Your task to perform on an android device: Toggle the flashlight Image 0: 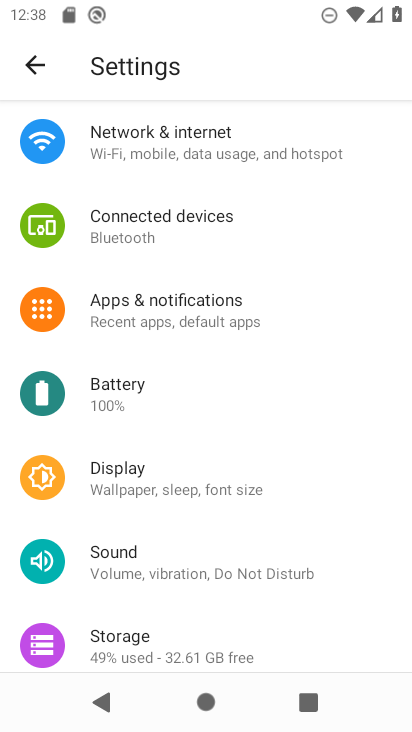
Step 0: drag from (366, 228) to (396, 531)
Your task to perform on an android device: Toggle the flashlight Image 1: 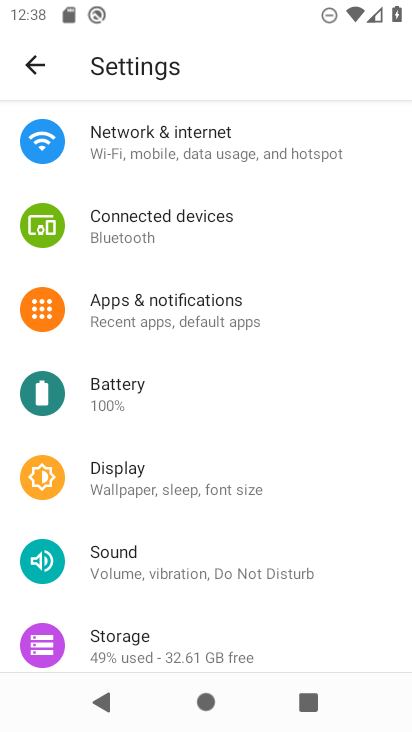
Step 1: click (130, 308)
Your task to perform on an android device: Toggle the flashlight Image 2: 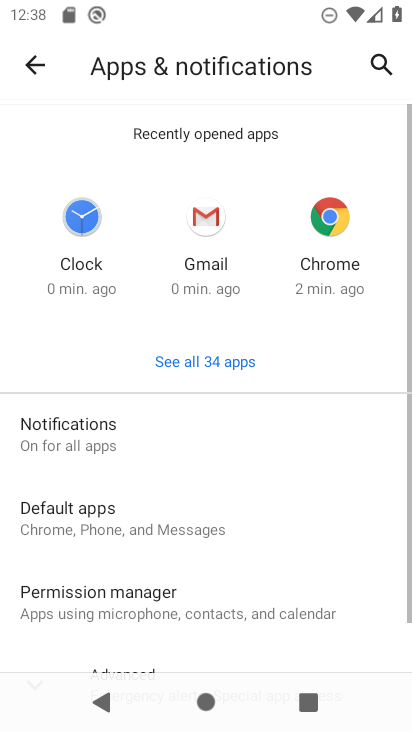
Step 2: drag from (323, 578) to (285, 230)
Your task to perform on an android device: Toggle the flashlight Image 3: 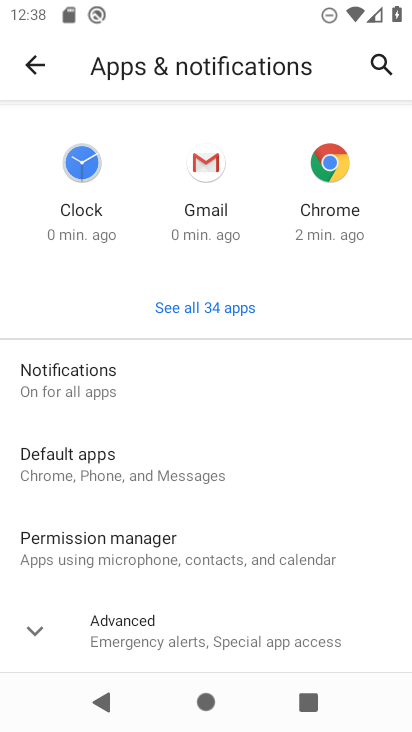
Step 3: drag from (378, 612) to (332, 329)
Your task to perform on an android device: Toggle the flashlight Image 4: 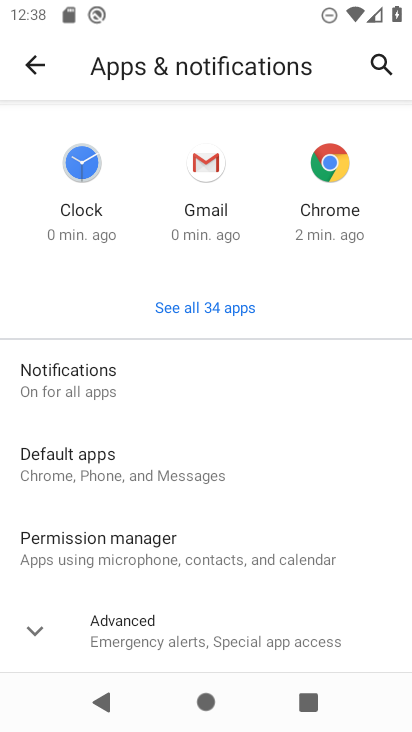
Step 4: drag from (373, 604) to (351, 315)
Your task to perform on an android device: Toggle the flashlight Image 5: 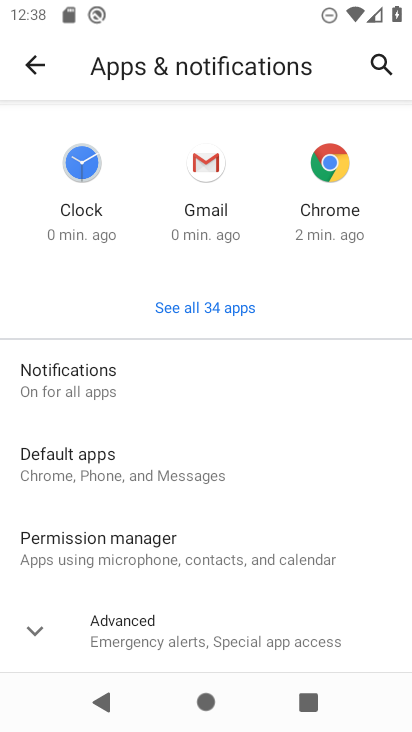
Step 5: click (28, 47)
Your task to perform on an android device: Toggle the flashlight Image 6: 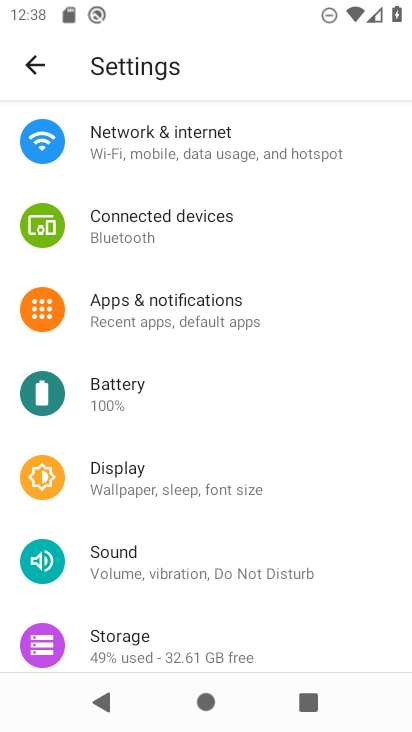
Step 6: click (128, 466)
Your task to perform on an android device: Toggle the flashlight Image 7: 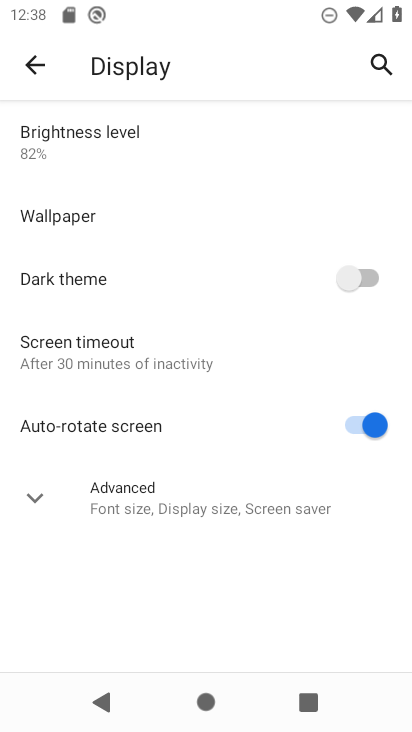
Step 7: task complete